Your task to perform on an android device: Go to Wikipedia Image 0: 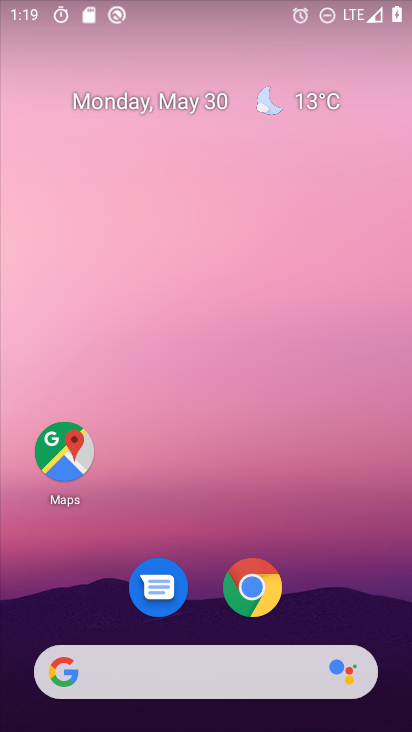
Step 0: drag from (351, 484) to (352, 163)
Your task to perform on an android device: Go to Wikipedia Image 1: 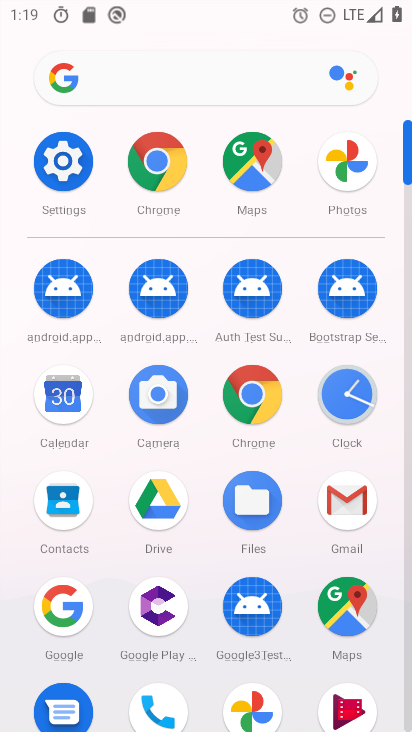
Step 1: click (251, 392)
Your task to perform on an android device: Go to Wikipedia Image 2: 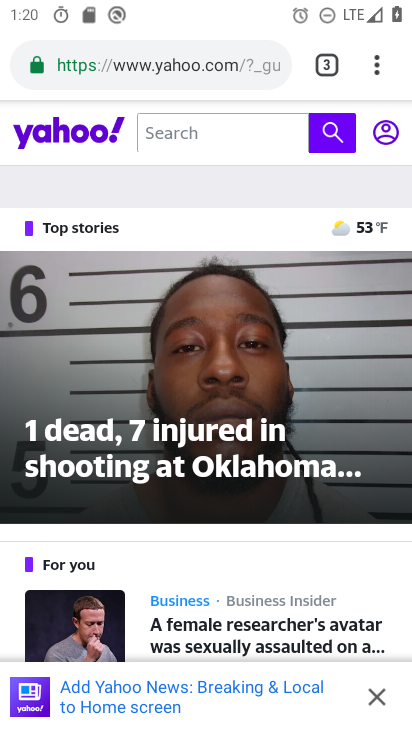
Step 2: click (160, 72)
Your task to perform on an android device: Go to Wikipedia Image 3: 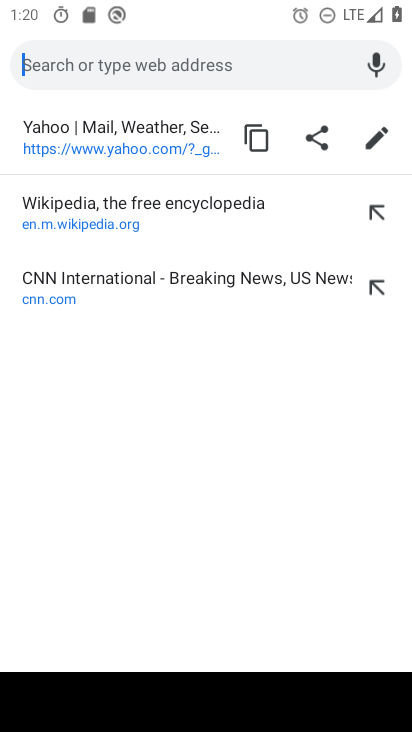
Step 3: click (89, 214)
Your task to perform on an android device: Go to Wikipedia Image 4: 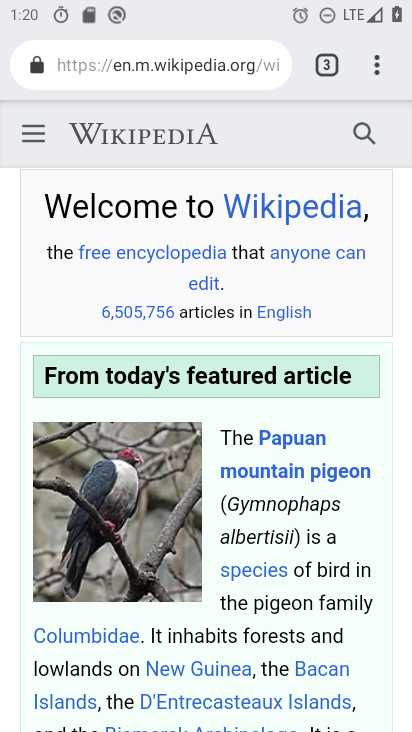
Step 4: task complete